Your task to perform on an android device: Toggle the flashlight Image 0: 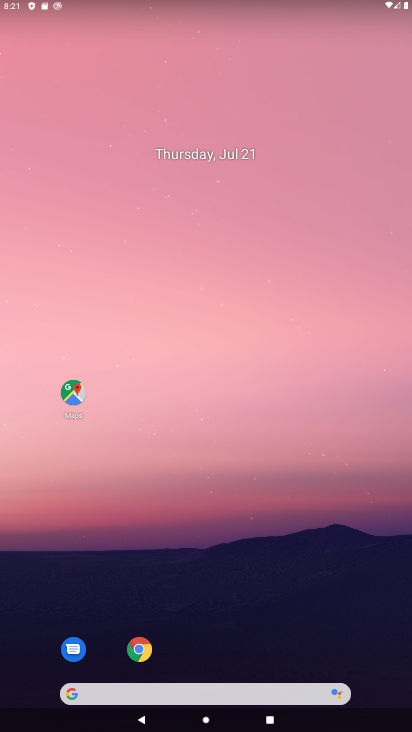
Step 0: drag from (208, 645) to (223, 83)
Your task to perform on an android device: Toggle the flashlight Image 1: 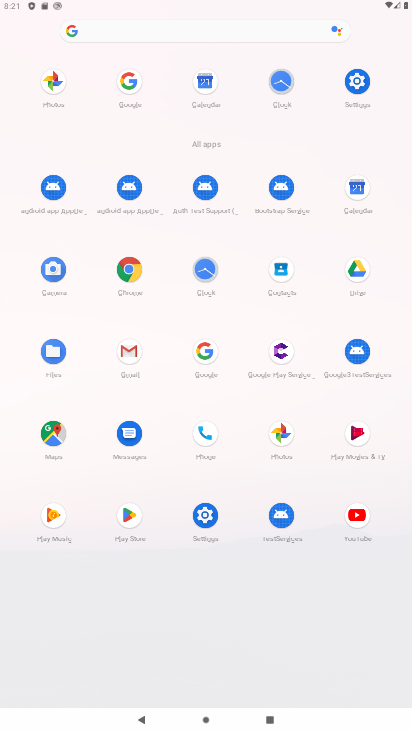
Step 1: click (357, 81)
Your task to perform on an android device: Toggle the flashlight Image 2: 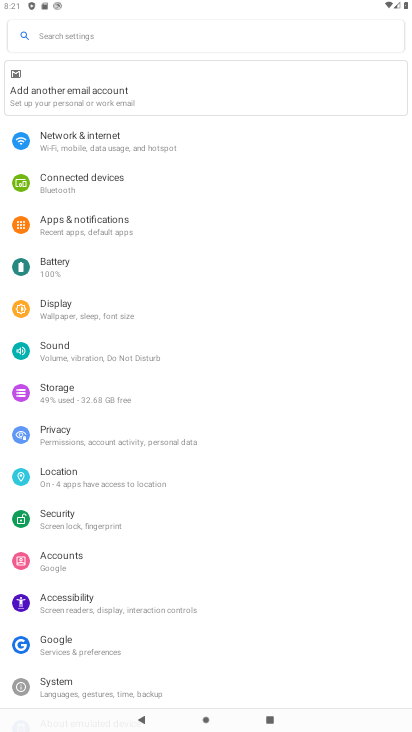
Step 2: click (106, 35)
Your task to perform on an android device: Toggle the flashlight Image 3: 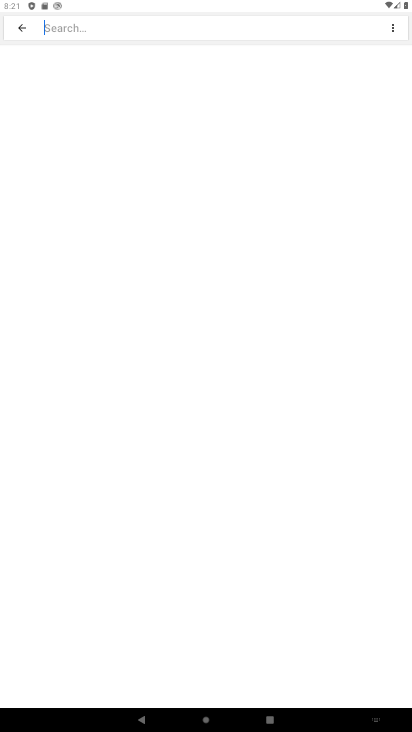
Step 3: type "flashlight"
Your task to perform on an android device: Toggle the flashlight Image 4: 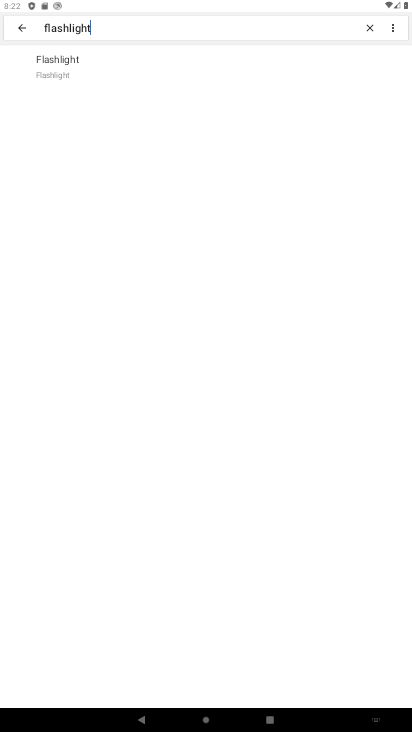
Step 4: task complete